Your task to perform on an android device: add a contact Image 0: 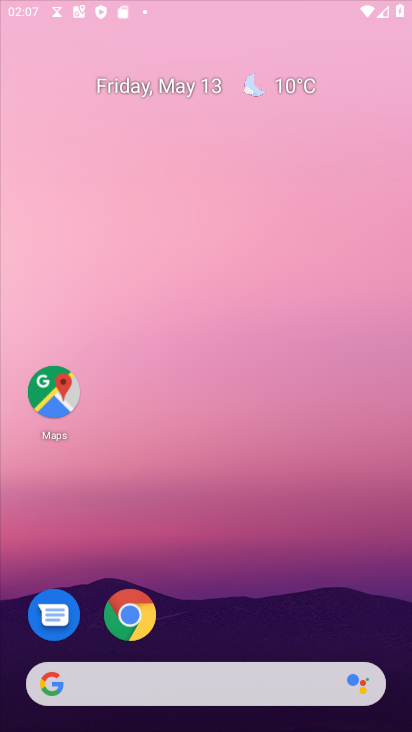
Step 0: click (62, 126)
Your task to perform on an android device: add a contact Image 1: 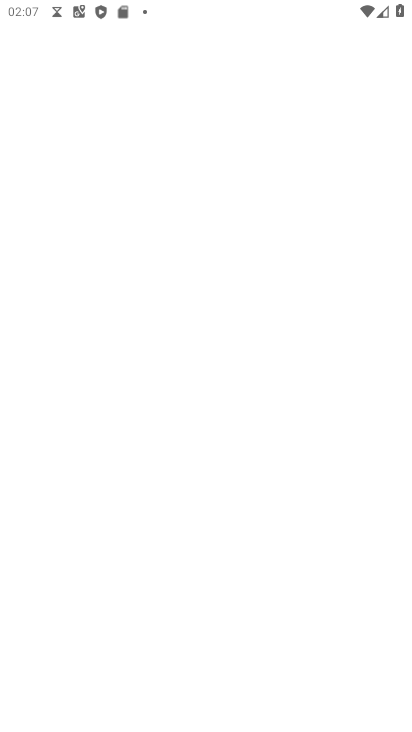
Step 1: press back button
Your task to perform on an android device: add a contact Image 2: 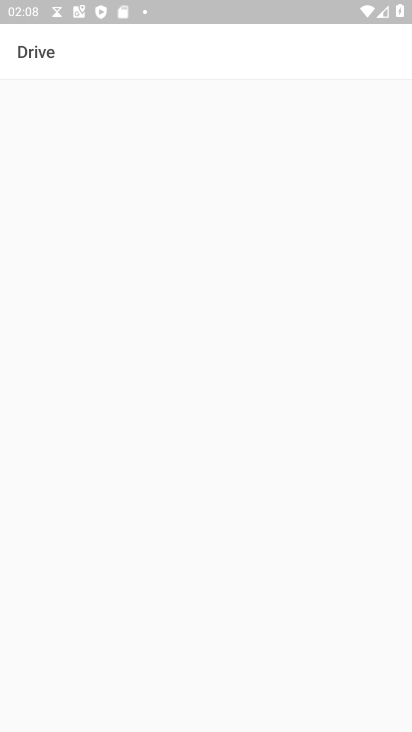
Step 2: press home button
Your task to perform on an android device: add a contact Image 3: 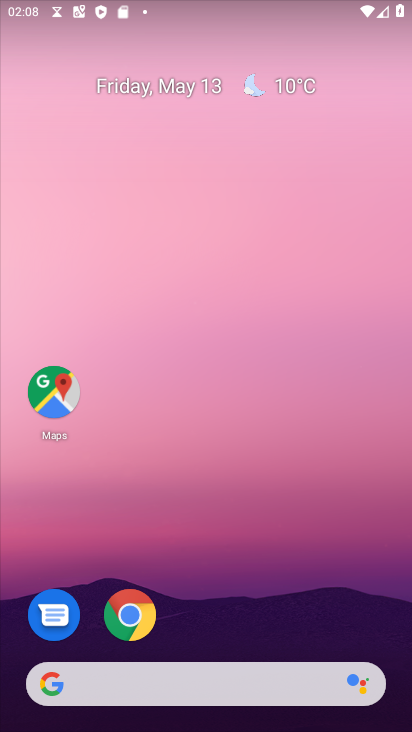
Step 3: drag from (222, 621) to (74, 76)
Your task to perform on an android device: add a contact Image 4: 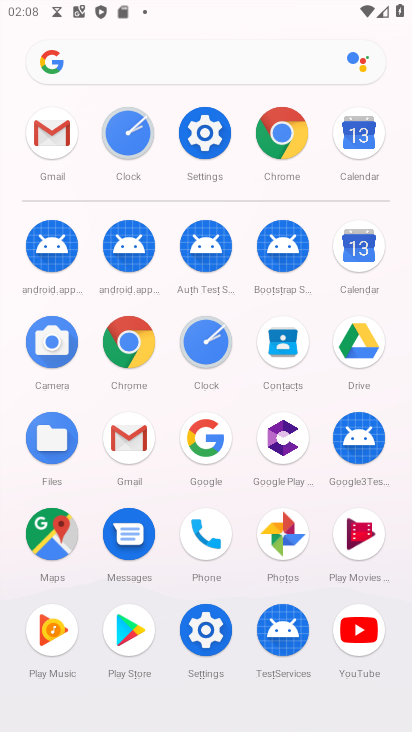
Step 4: click (277, 346)
Your task to perform on an android device: add a contact Image 5: 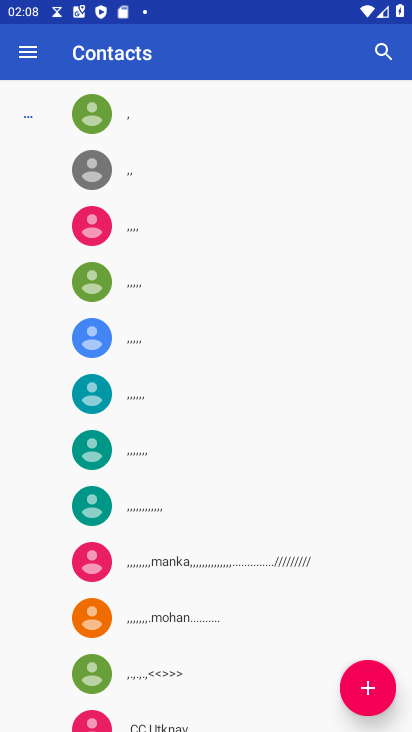
Step 5: click (378, 689)
Your task to perform on an android device: add a contact Image 6: 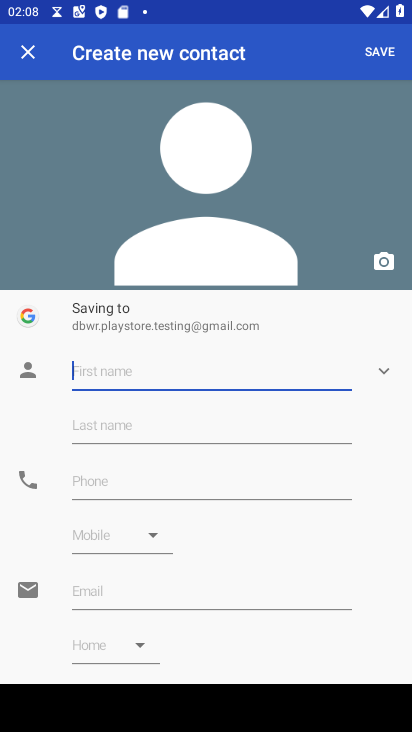
Step 6: click (136, 378)
Your task to perform on an android device: add a contact Image 7: 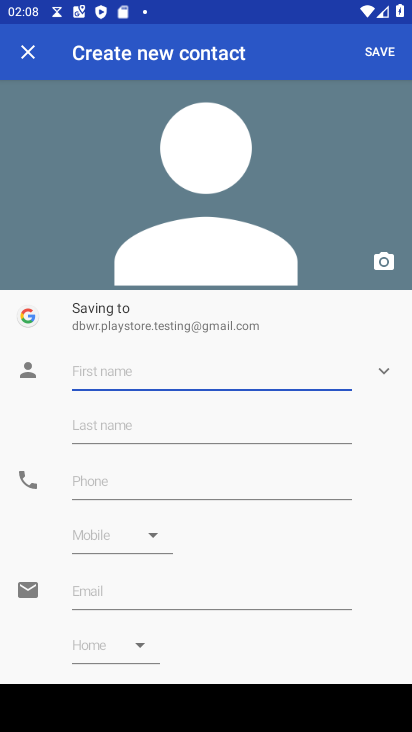
Step 7: type "teja"
Your task to perform on an android device: add a contact Image 8: 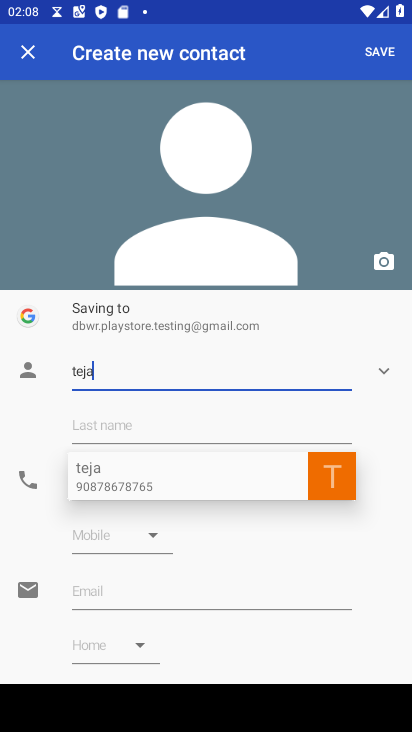
Step 8: type "n"
Your task to perform on an android device: add a contact Image 9: 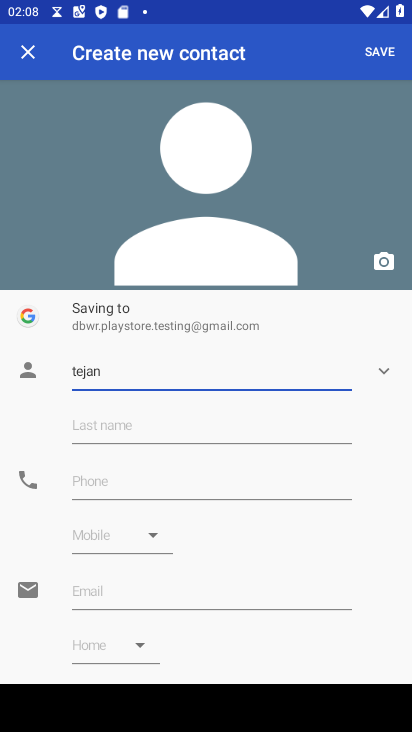
Step 9: click (98, 494)
Your task to perform on an android device: add a contact Image 10: 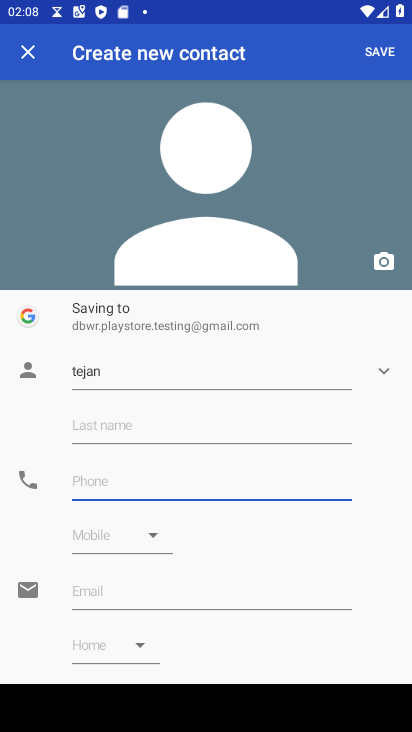
Step 10: type "4567123098"
Your task to perform on an android device: add a contact Image 11: 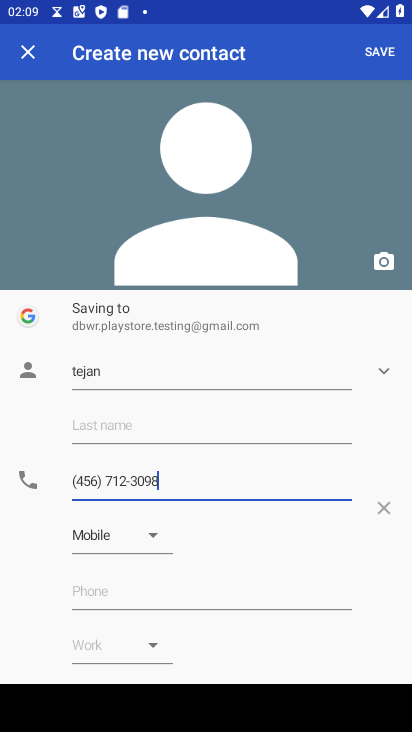
Step 11: click (379, 50)
Your task to perform on an android device: add a contact Image 12: 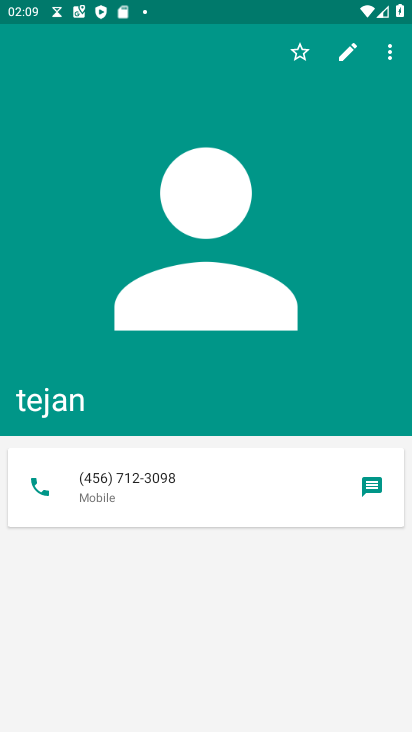
Step 12: task complete